Your task to perform on an android device: choose inbox layout in the gmail app Image 0: 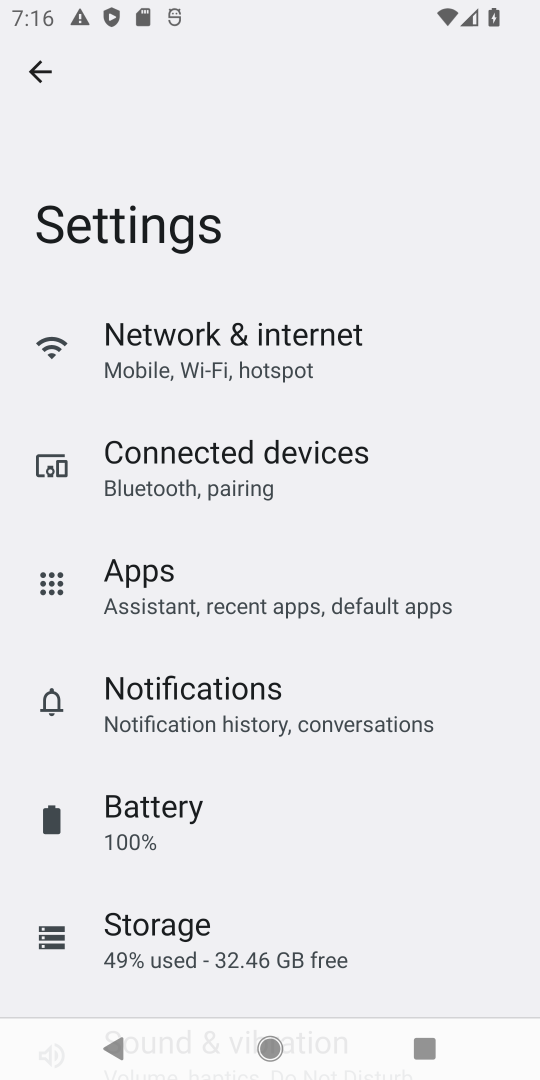
Step 0: drag from (367, 824) to (386, 270)
Your task to perform on an android device: choose inbox layout in the gmail app Image 1: 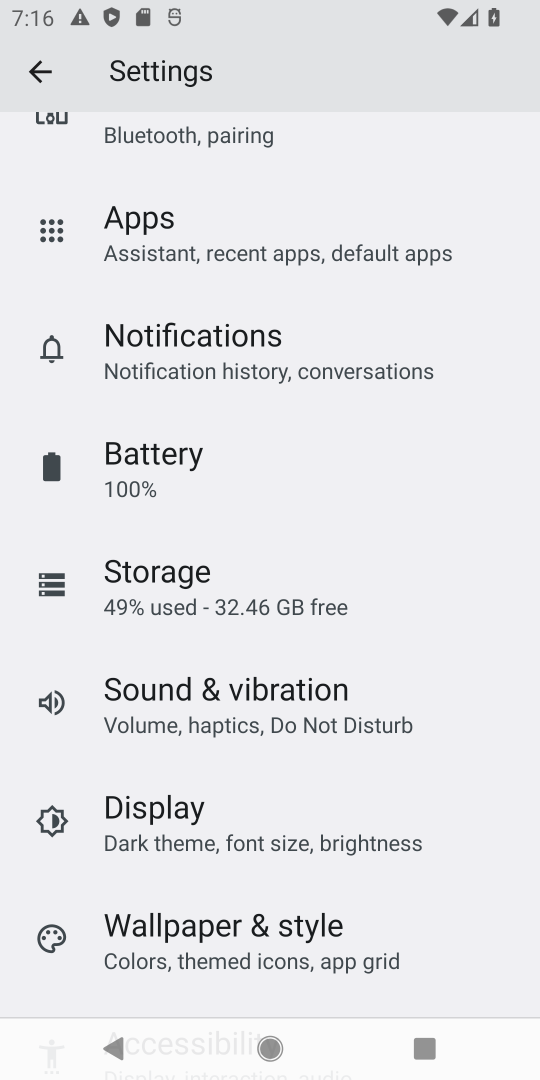
Step 1: drag from (418, 963) to (417, 224)
Your task to perform on an android device: choose inbox layout in the gmail app Image 2: 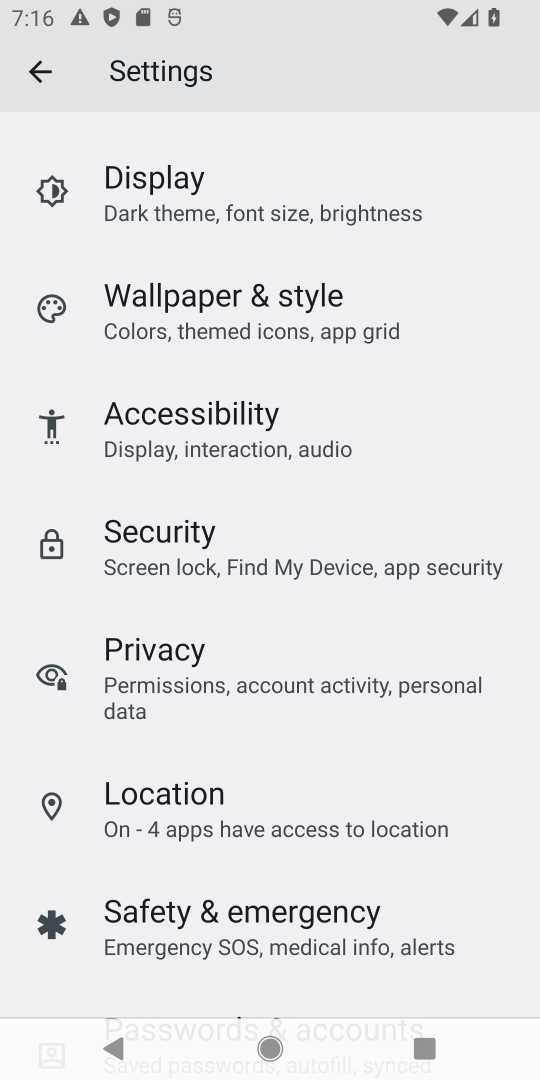
Step 2: drag from (413, 903) to (378, 308)
Your task to perform on an android device: choose inbox layout in the gmail app Image 3: 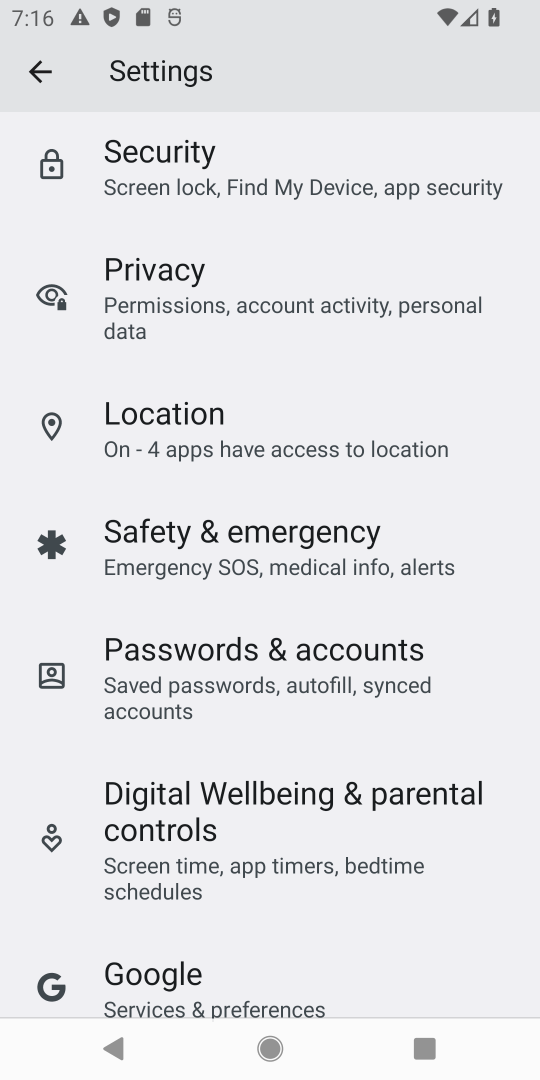
Step 3: press home button
Your task to perform on an android device: choose inbox layout in the gmail app Image 4: 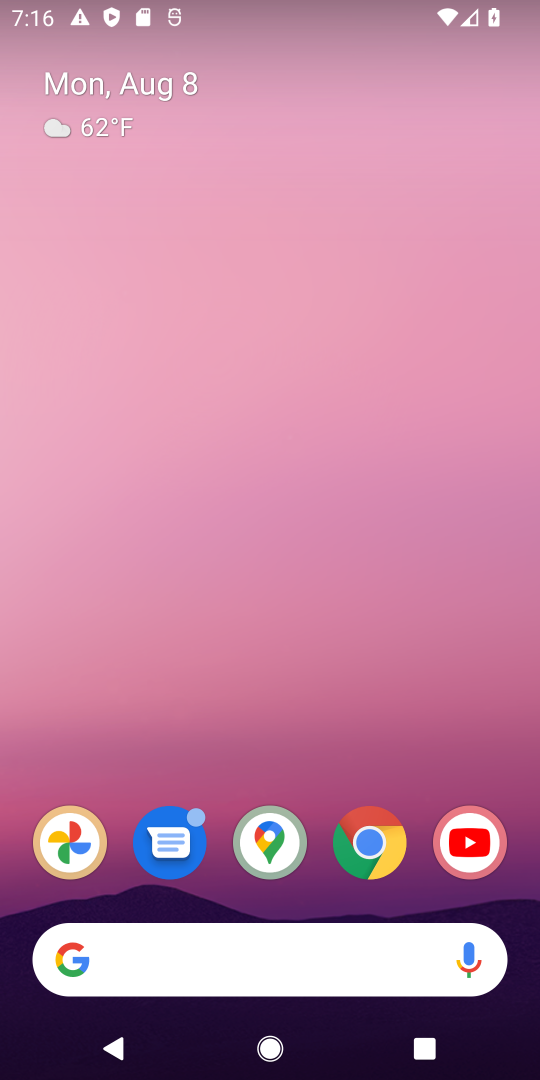
Step 4: drag from (463, 855) to (407, 131)
Your task to perform on an android device: choose inbox layout in the gmail app Image 5: 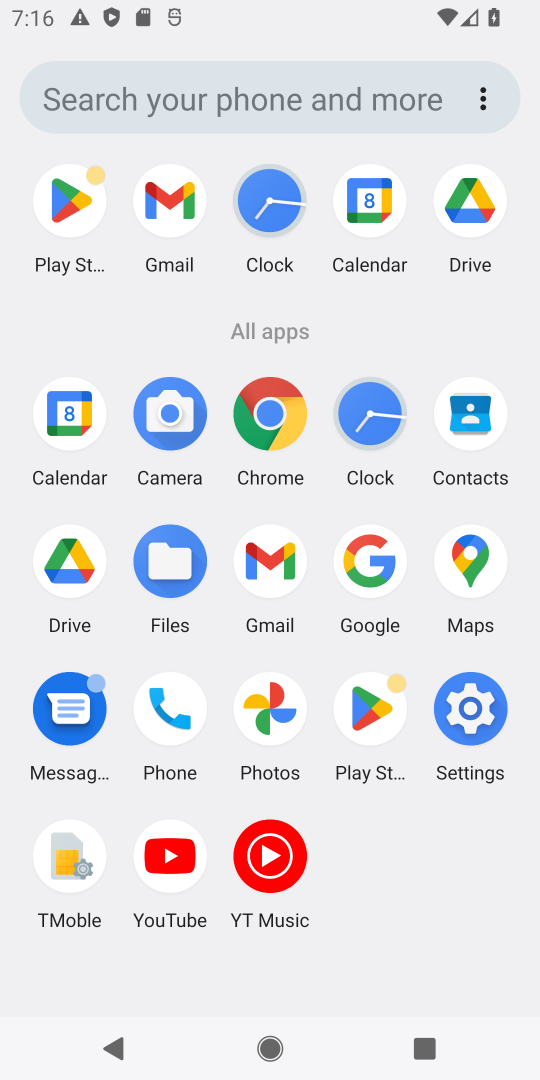
Step 5: click (282, 550)
Your task to perform on an android device: choose inbox layout in the gmail app Image 6: 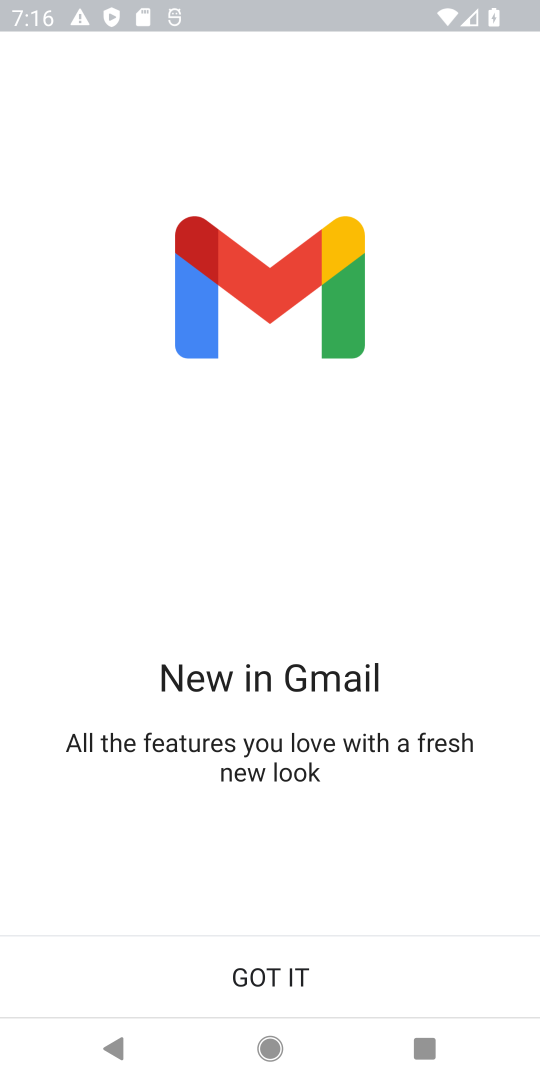
Step 6: click (240, 983)
Your task to perform on an android device: choose inbox layout in the gmail app Image 7: 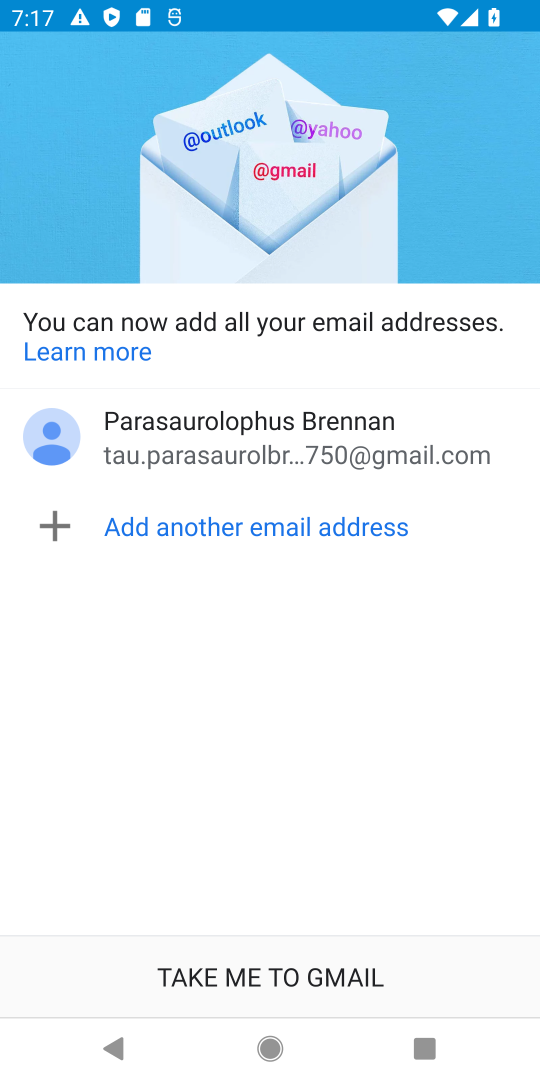
Step 7: click (277, 972)
Your task to perform on an android device: choose inbox layout in the gmail app Image 8: 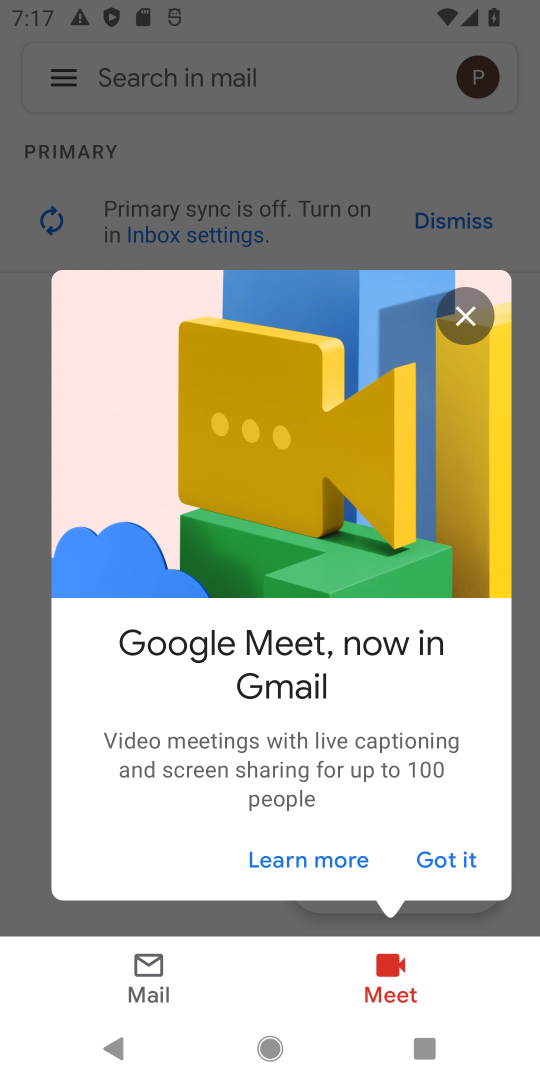
Step 8: click (431, 868)
Your task to perform on an android device: choose inbox layout in the gmail app Image 9: 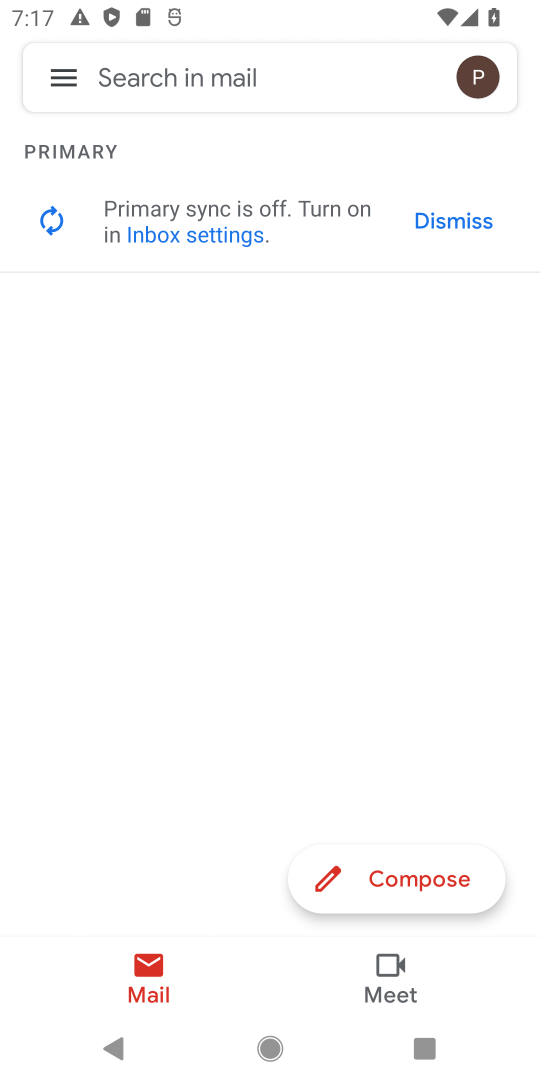
Step 9: click (53, 78)
Your task to perform on an android device: choose inbox layout in the gmail app Image 10: 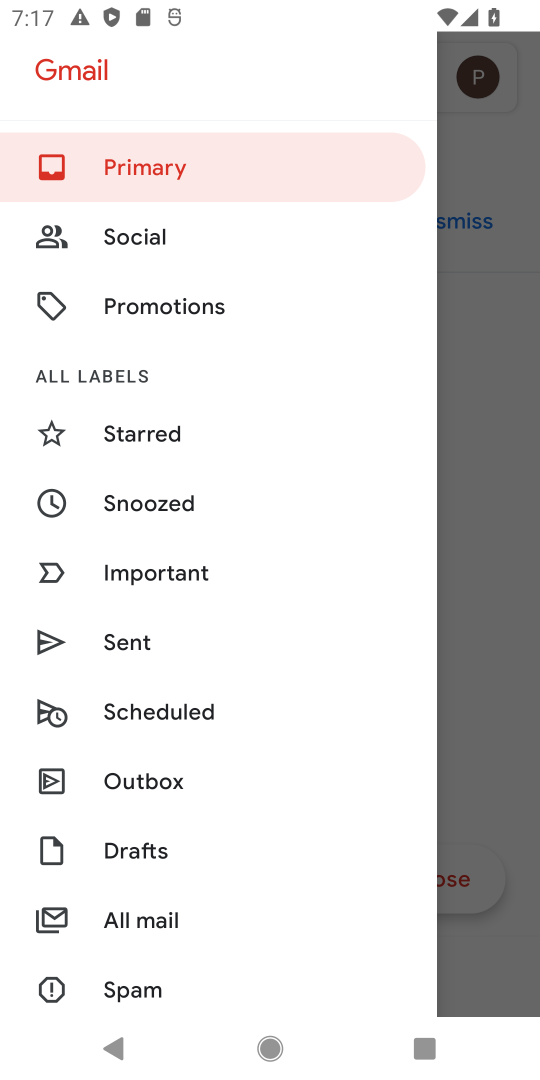
Step 10: drag from (301, 941) to (324, 496)
Your task to perform on an android device: choose inbox layout in the gmail app Image 11: 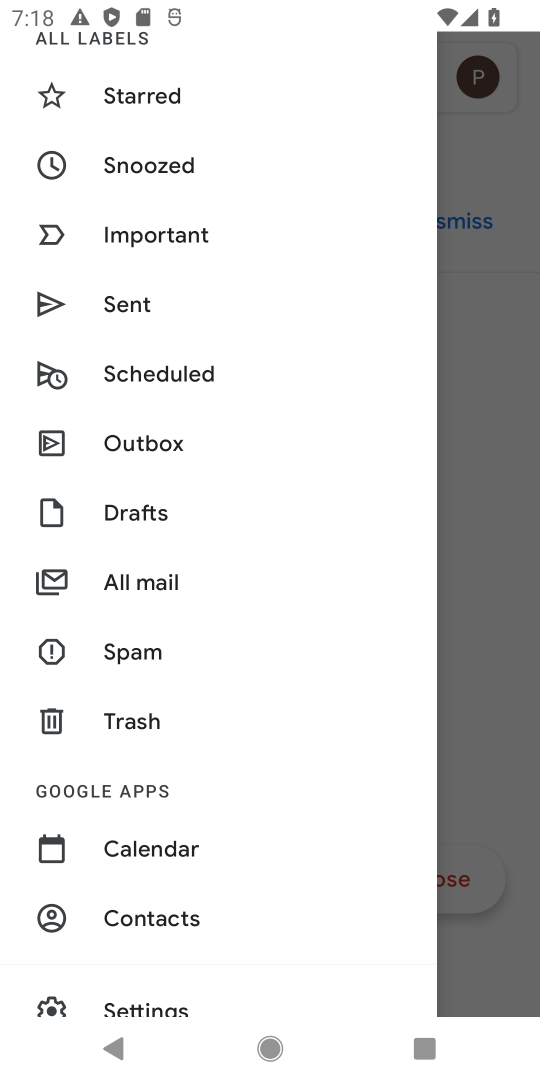
Step 11: click (138, 995)
Your task to perform on an android device: choose inbox layout in the gmail app Image 12: 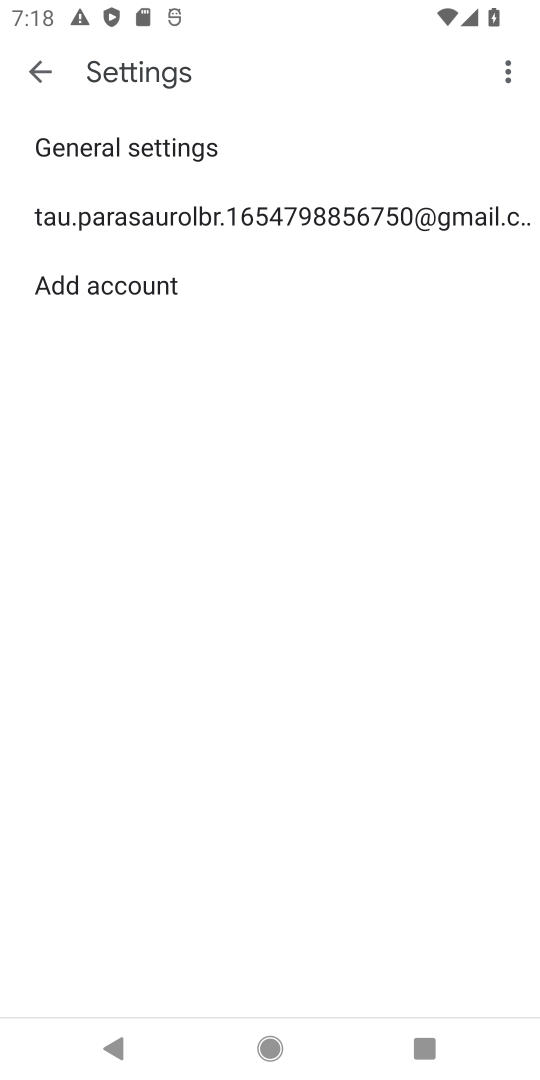
Step 12: click (165, 215)
Your task to perform on an android device: choose inbox layout in the gmail app Image 13: 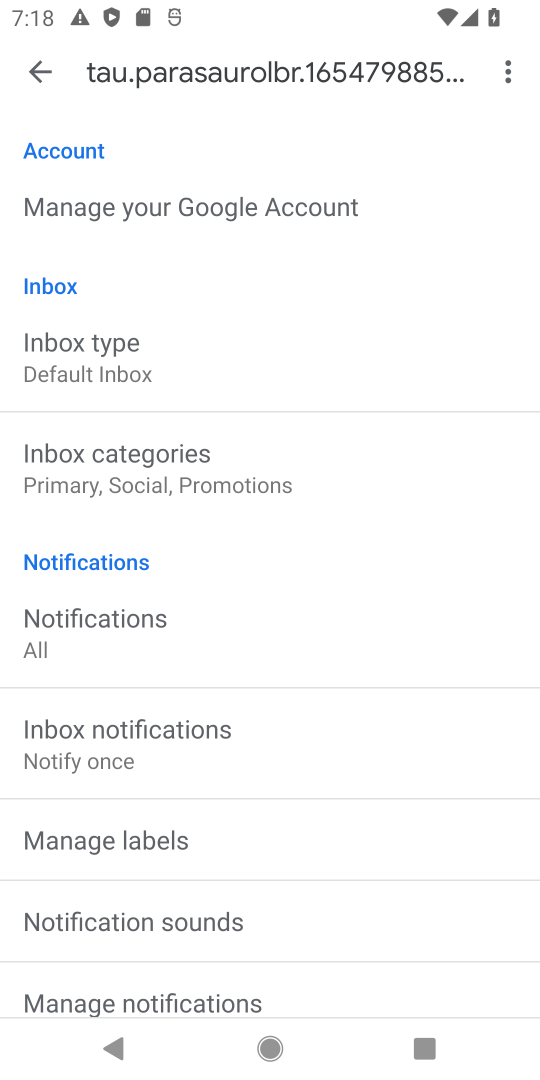
Step 13: click (79, 357)
Your task to perform on an android device: choose inbox layout in the gmail app Image 14: 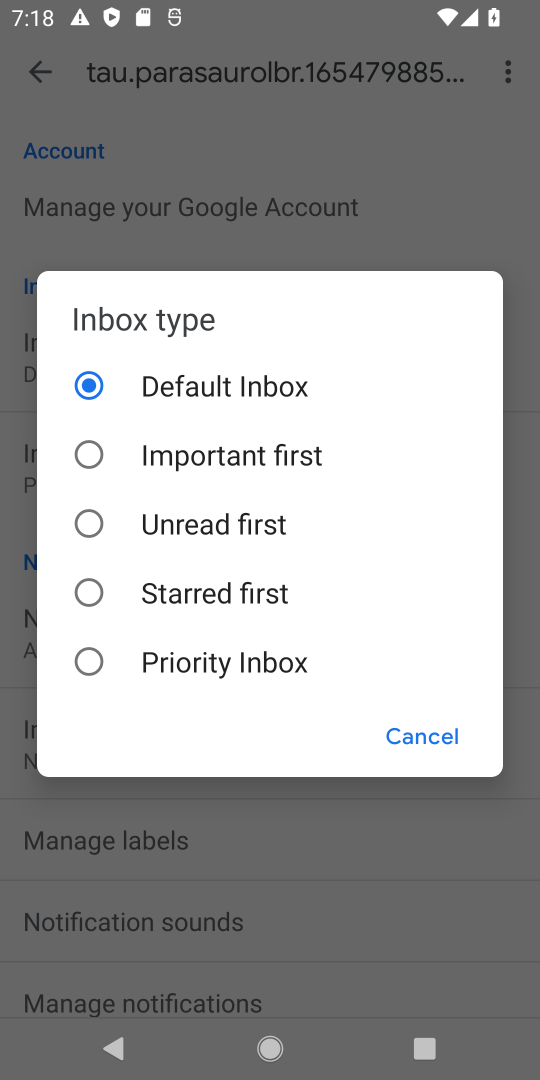
Step 14: click (84, 448)
Your task to perform on an android device: choose inbox layout in the gmail app Image 15: 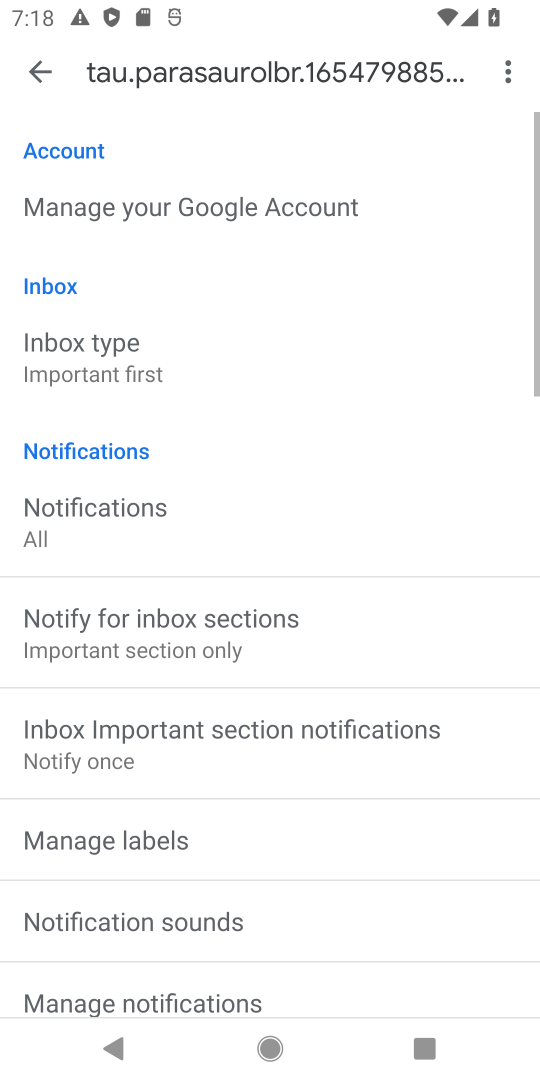
Step 15: task complete